Your task to perform on an android device: check android version Image 0: 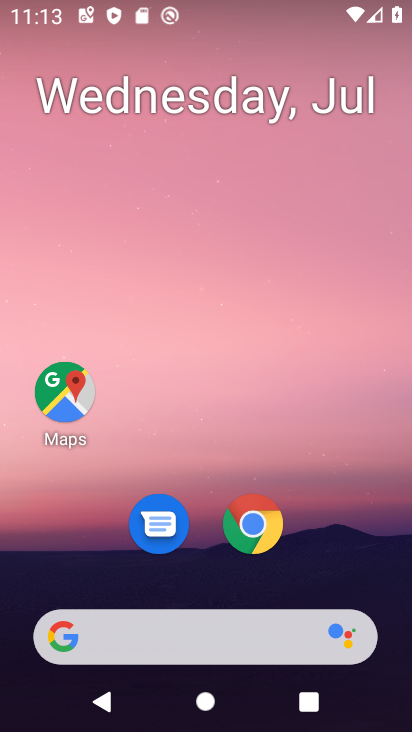
Step 0: press home button
Your task to perform on an android device: check android version Image 1: 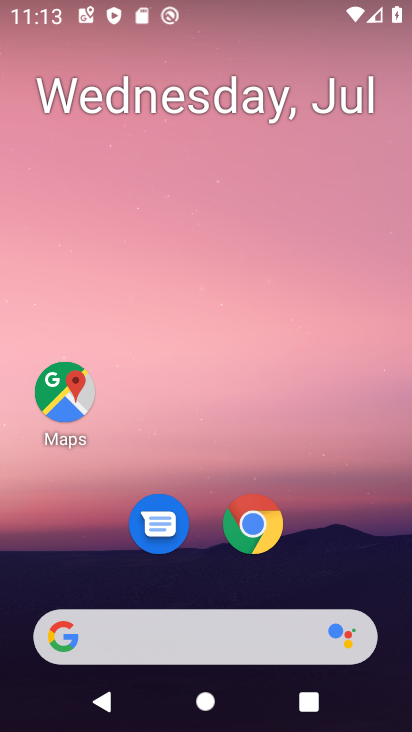
Step 1: drag from (224, 636) to (274, 150)
Your task to perform on an android device: check android version Image 2: 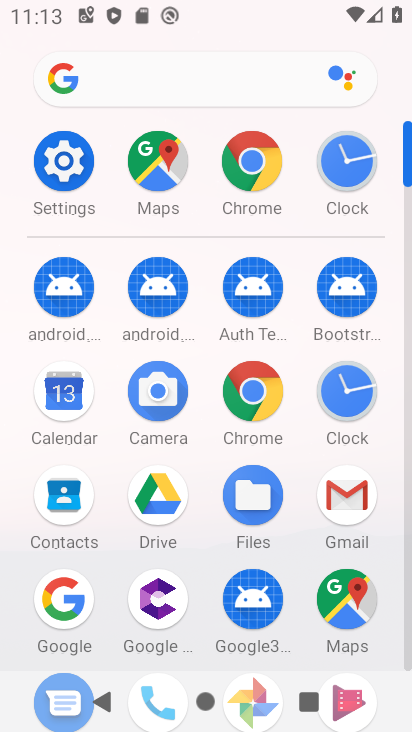
Step 2: click (72, 168)
Your task to perform on an android device: check android version Image 3: 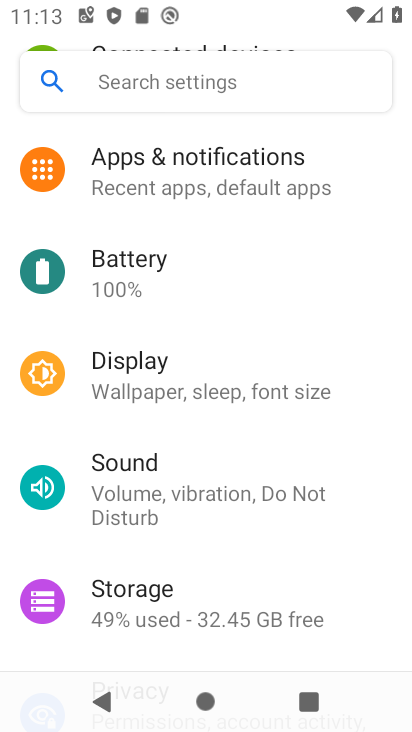
Step 3: drag from (220, 609) to (294, 28)
Your task to perform on an android device: check android version Image 4: 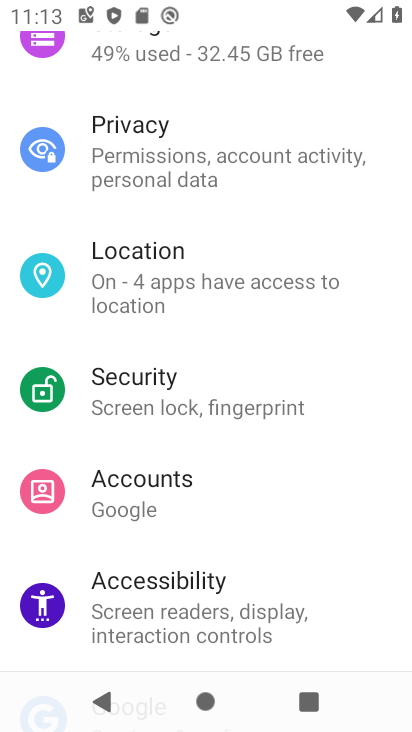
Step 4: drag from (264, 553) to (401, 82)
Your task to perform on an android device: check android version Image 5: 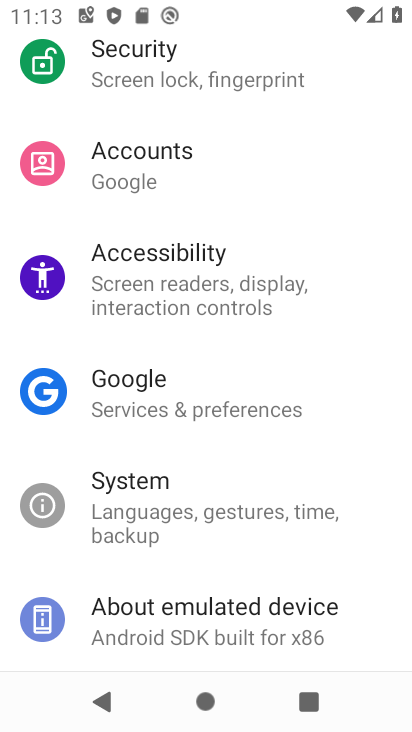
Step 5: click (220, 616)
Your task to perform on an android device: check android version Image 6: 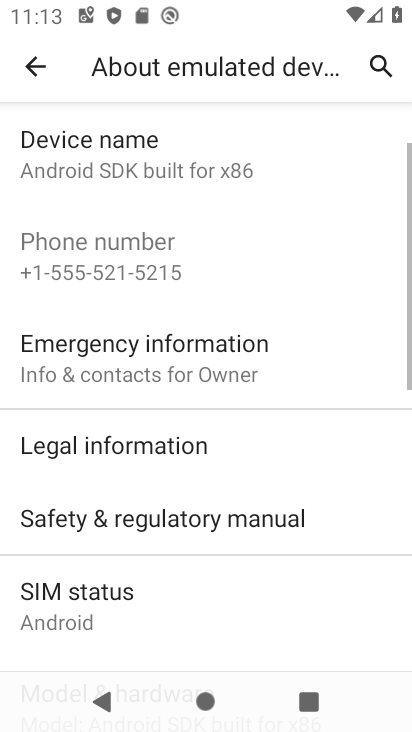
Step 6: drag from (212, 610) to (226, 17)
Your task to perform on an android device: check android version Image 7: 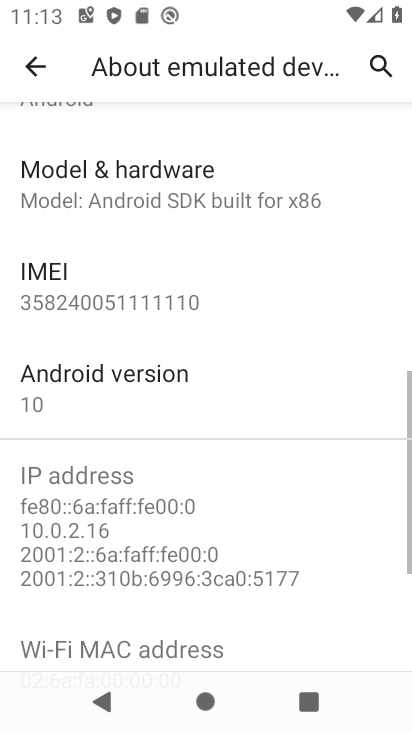
Step 7: click (144, 379)
Your task to perform on an android device: check android version Image 8: 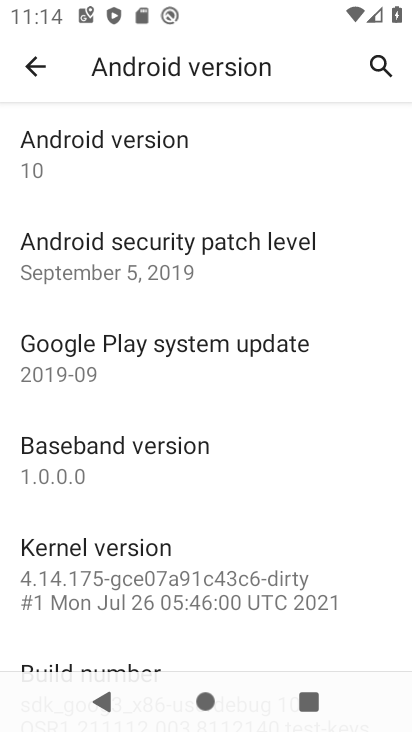
Step 8: task complete